Your task to perform on an android device: Play the last video I watched on Youtube Image 0: 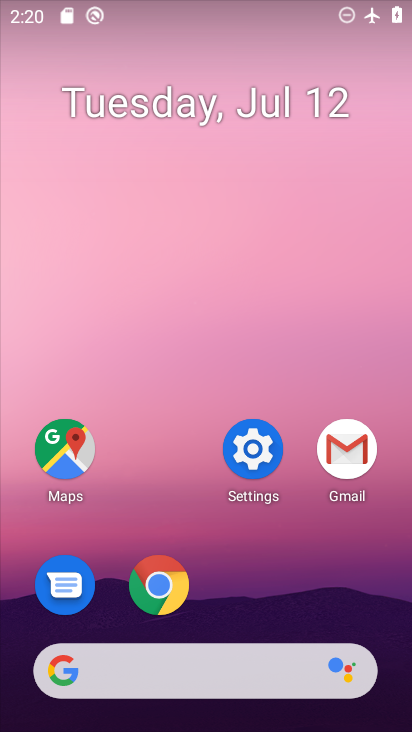
Step 0: drag from (387, 705) to (364, 161)
Your task to perform on an android device: Play the last video I watched on Youtube Image 1: 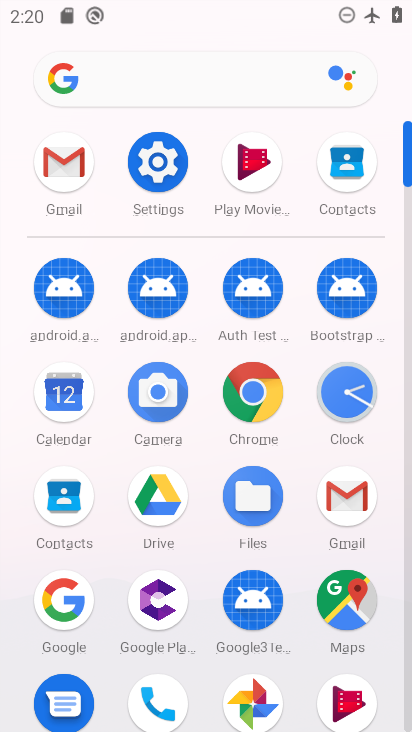
Step 1: drag from (299, 396) to (284, 309)
Your task to perform on an android device: Play the last video I watched on Youtube Image 2: 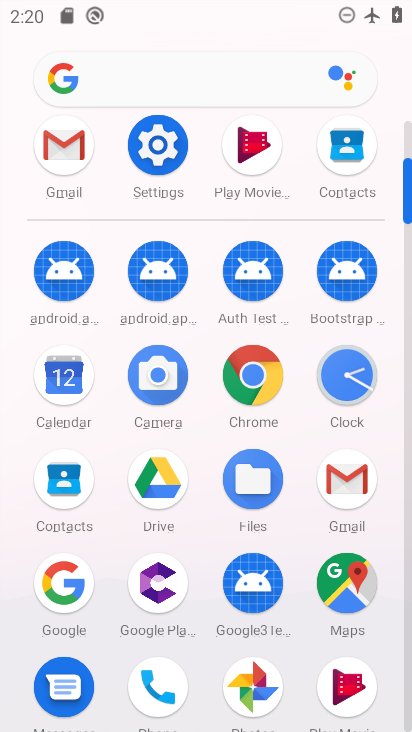
Step 2: drag from (205, 661) to (249, 317)
Your task to perform on an android device: Play the last video I watched on Youtube Image 3: 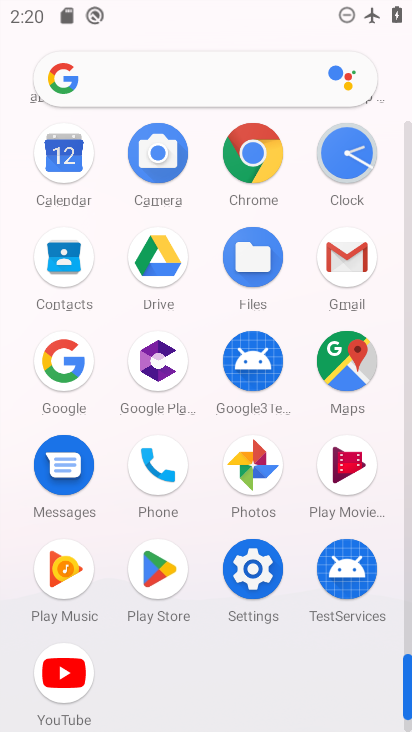
Step 3: click (48, 683)
Your task to perform on an android device: Play the last video I watched on Youtube Image 4: 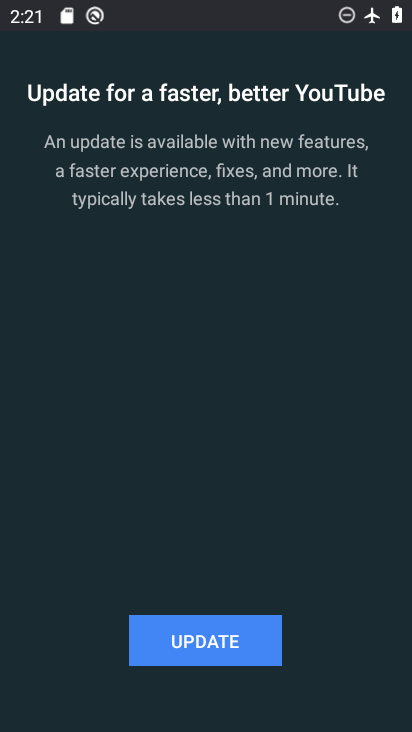
Step 4: click (231, 632)
Your task to perform on an android device: Play the last video I watched on Youtube Image 5: 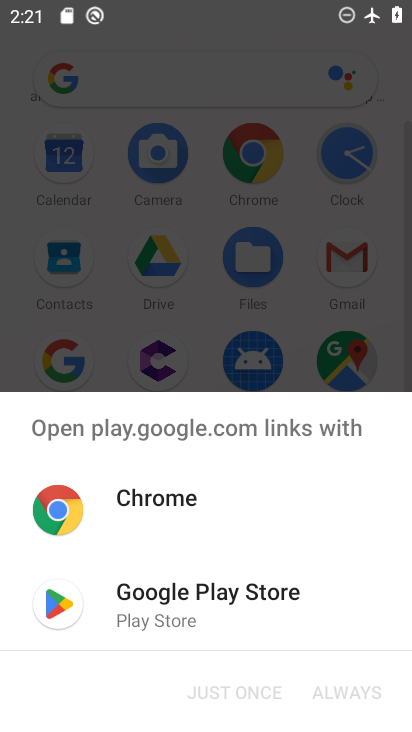
Step 5: click (148, 586)
Your task to perform on an android device: Play the last video I watched on Youtube Image 6: 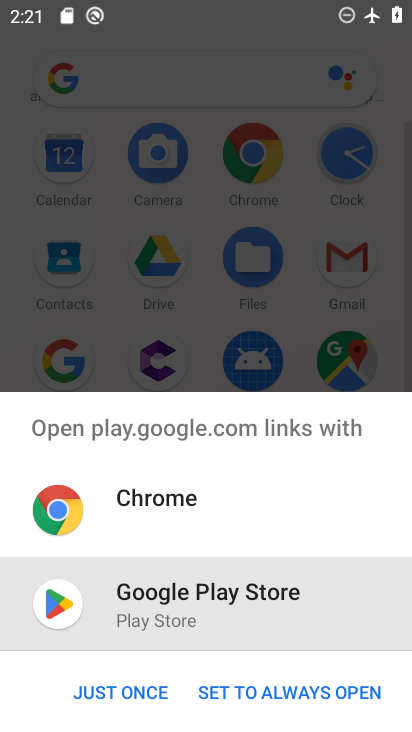
Step 6: click (141, 690)
Your task to perform on an android device: Play the last video I watched on Youtube Image 7: 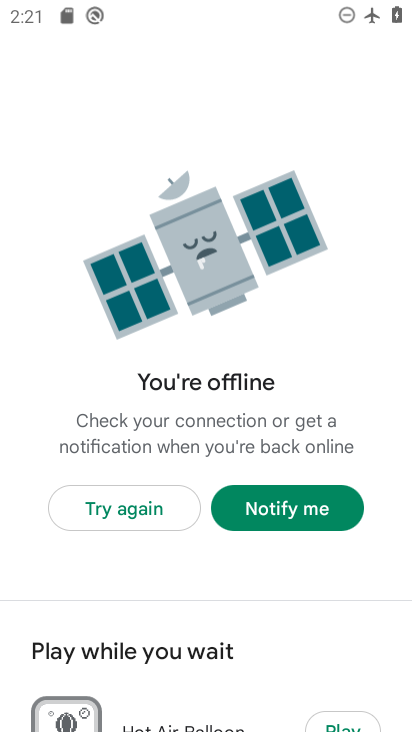
Step 7: task complete